Your task to perform on an android device: clear all cookies in the chrome app Image 0: 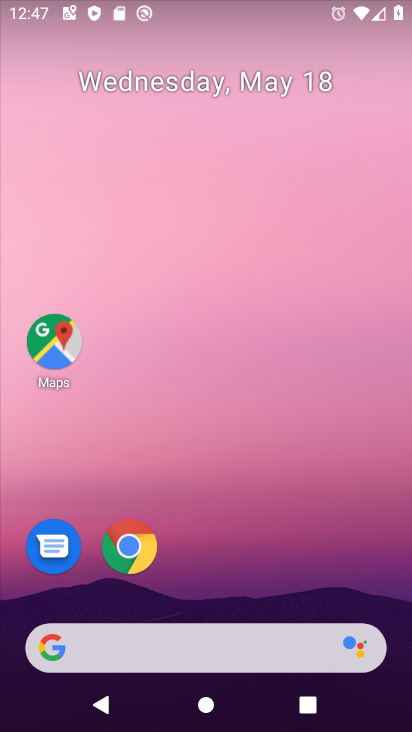
Step 0: click (118, 544)
Your task to perform on an android device: clear all cookies in the chrome app Image 1: 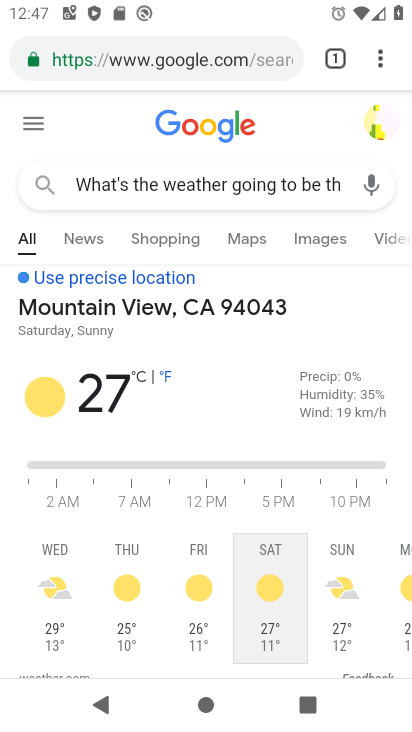
Step 1: drag from (381, 56) to (164, 577)
Your task to perform on an android device: clear all cookies in the chrome app Image 2: 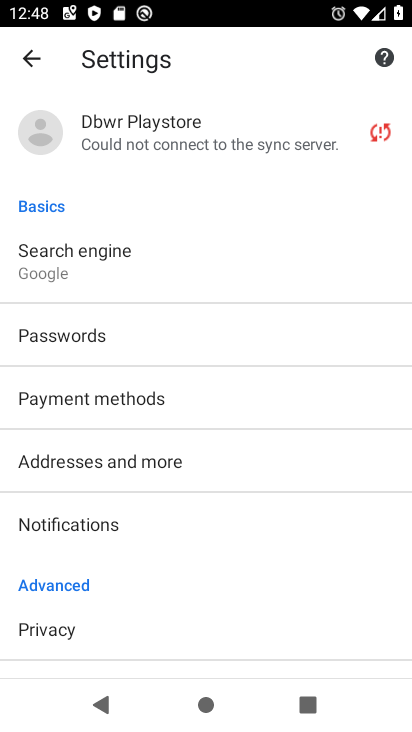
Step 2: drag from (254, 525) to (258, 353)
Your task to perform on an android device: clear all cookies in the chrome app Image 3: 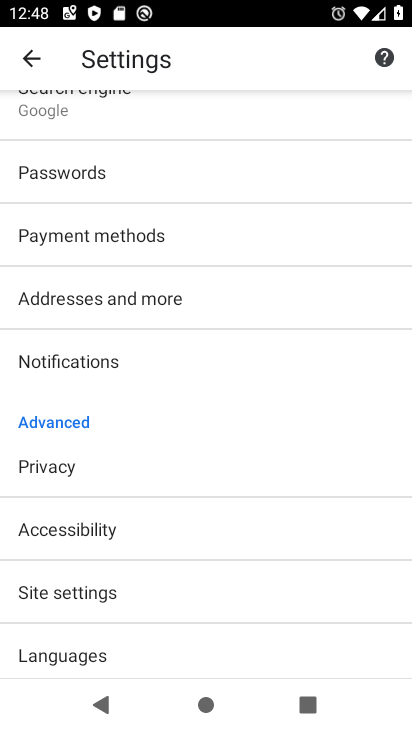
Step 3: click (106, 461)
Your task to perform on an android device: clear all cookies in the chrome app Image 4: 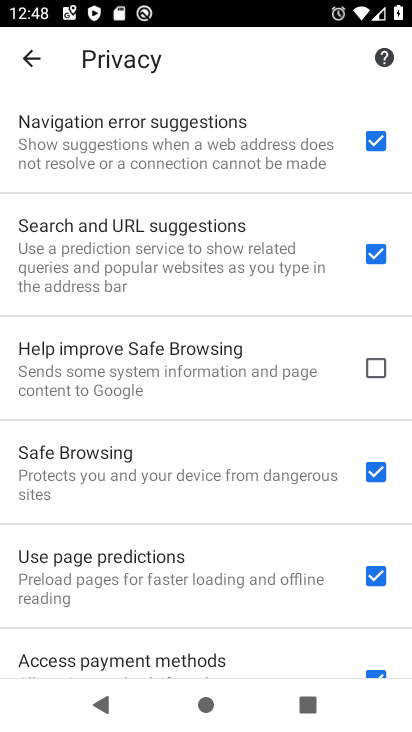
Step 4: drag from (79, 564) to (90, 262)
Your task to perform on an android device: clear all cookies in the chrome app Image 5: 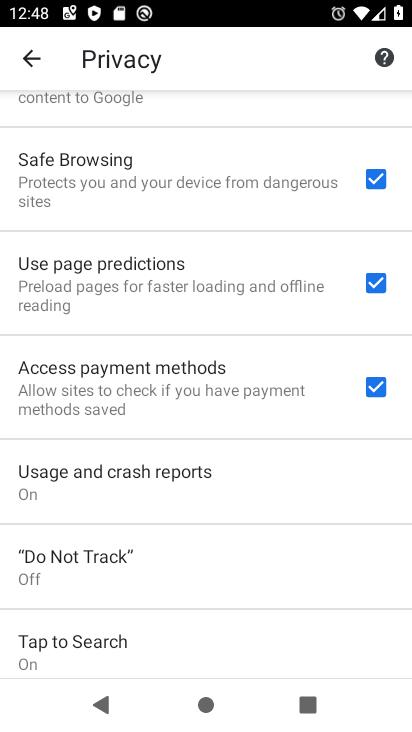
Step 5: drag from (142, 607) to (140, 365)
Your task to perform on an android device: clear all cookies in the chrome app Image 6: 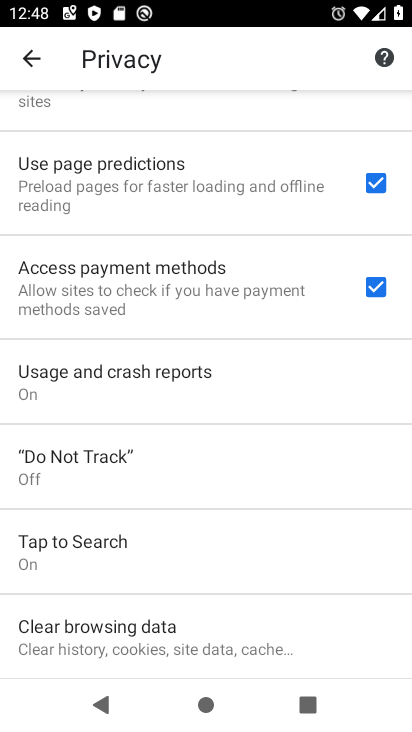
Step 6: click (123, 656)
Your task to perform on an android device: clear all cookies in the chrome app Image 7: 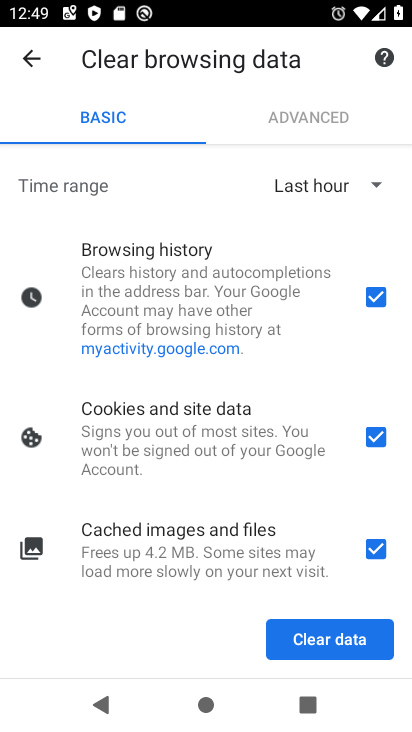
Step 7: click (344, 648)
Your task to perform on an android device: clear all cookies in the chrome app Image 8: 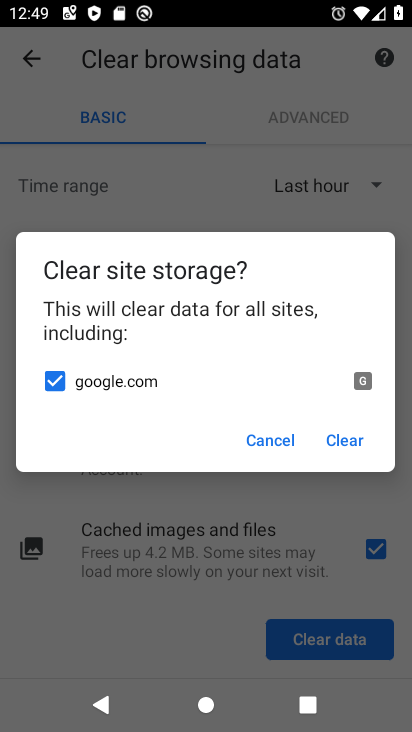
Step 8: click (355, 452)
Your task to perform on an android device: clear all cookies in the chrome app Image 9: 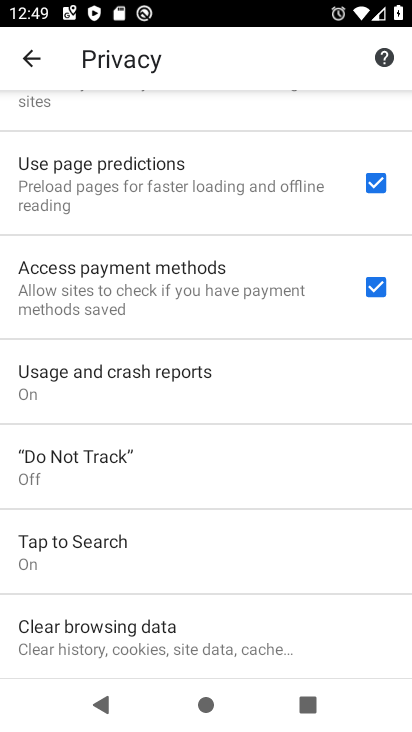
Step 9: task complete